Your task to perform on an android device: toggle notifications settings in the gmail app Image 0: 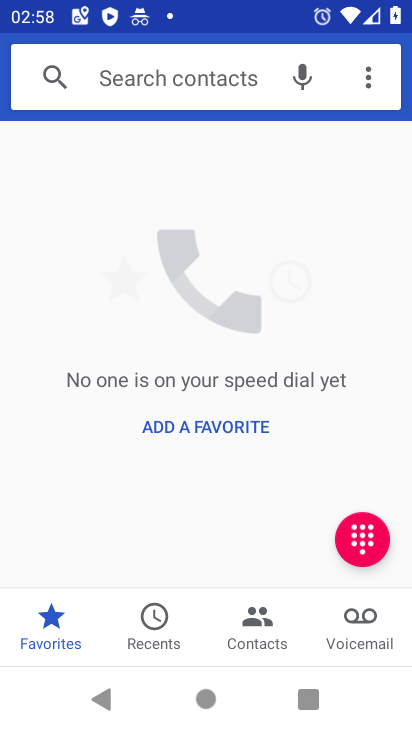
Step 0: press home button
Your task to perform on an android device: toggle notifications settings in the gmail app Image 1: 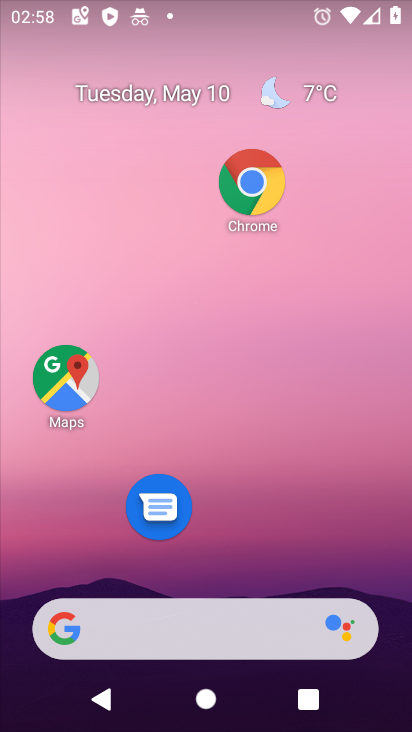
Step 1: drag from (299, 522) to (284, 190)
Your task to perform on an android device: toggle notifications settings in the gmail app Image 2: 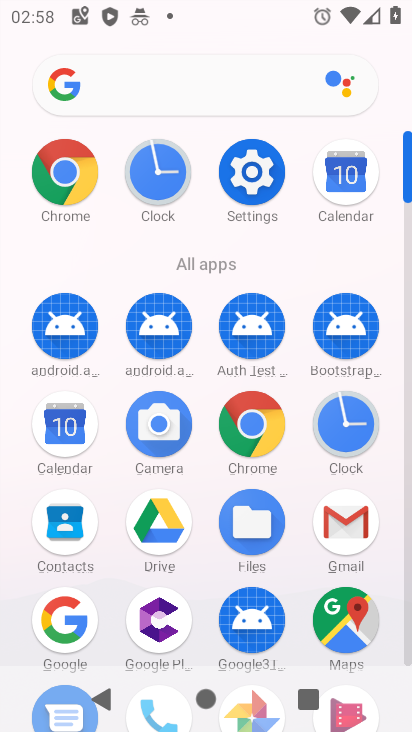
Step 2: click (249, 177)
Your task to perform on an android device: toggle notifications settings in the gmail app Image 3: 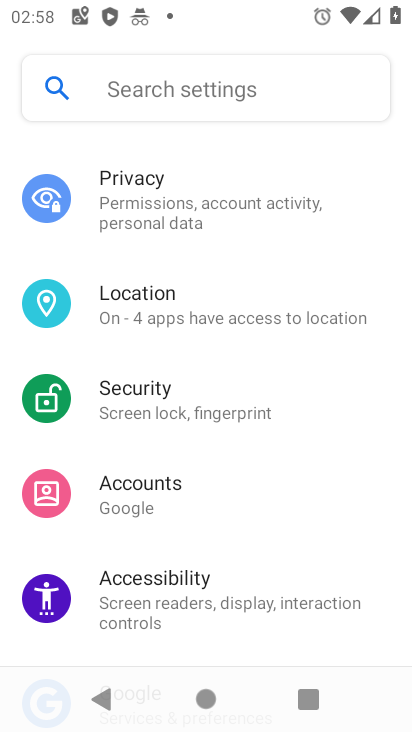
Step 3: press home button
Your task to perform on an android device: toggle notifications settings in the gmail app Image 4: 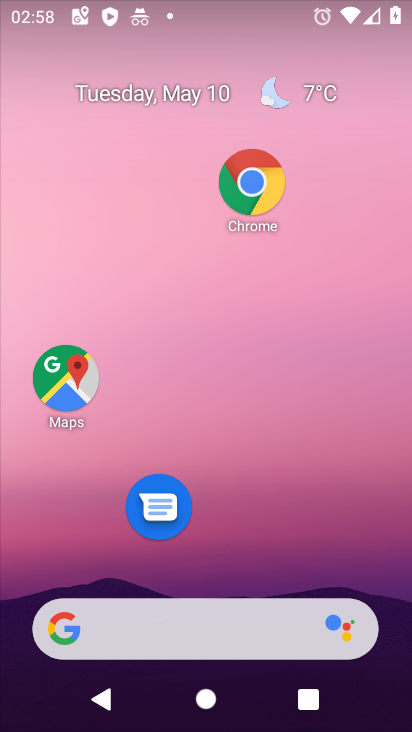
Step 4: drag from (213, 549) to (169, 106)
Your task to perform on an android device: toggle notifications settings in the gmail app Image 5: 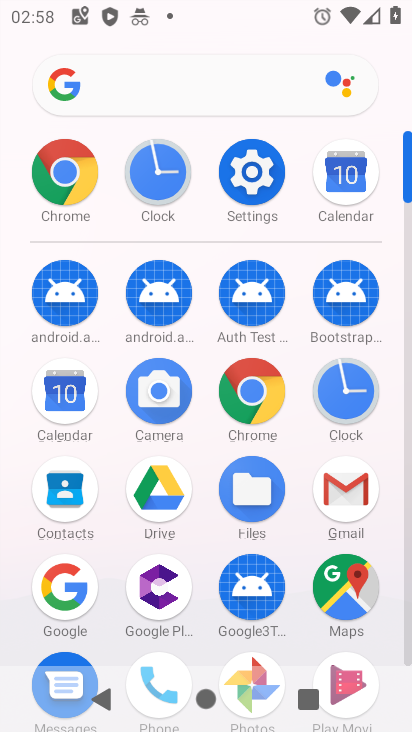
Step 5: click (345, 516)
Your task to perform on an android device: toggle notifications settings in the gmail app Image 6: 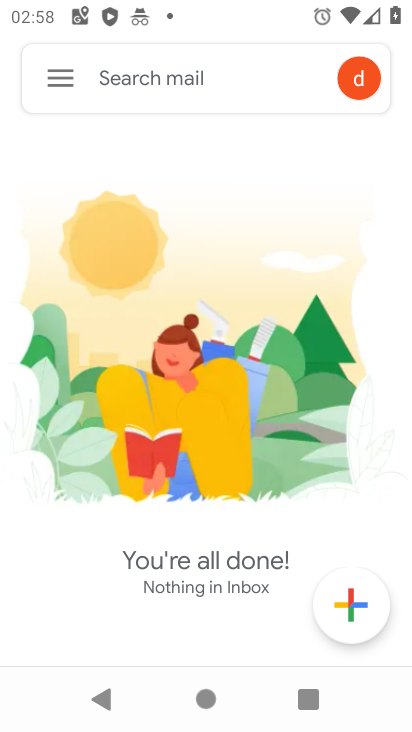
Step 6: click (49, 76)
Your task to perform on an android device: toggle notifications settings in the gmail app Image 7: 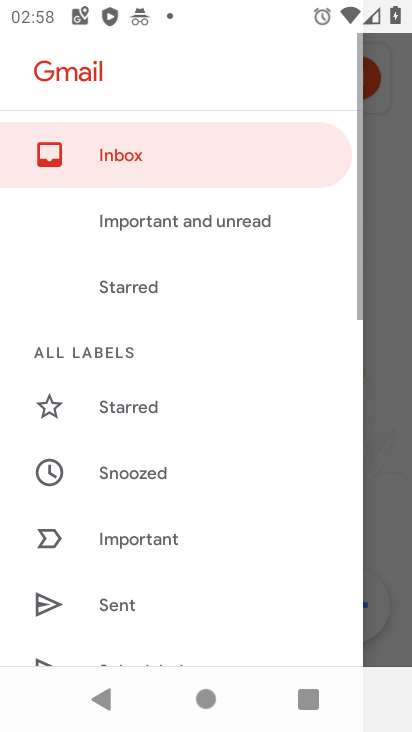
Step 7: drag from (115, 475) to (87, 202)
Your task to perform on an android device: toggle notifications settings in the gmail app Image 8: 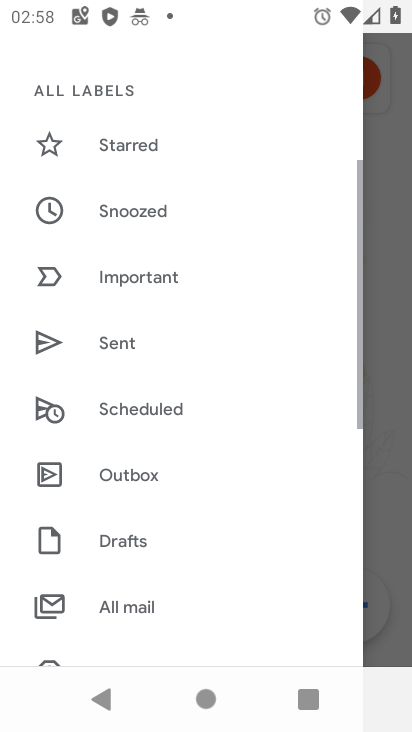
Step 8: drag from (145, 548) to (122, 295)
Your task to perform on an android device: toggle notifications settings in the gmail app Image 9: 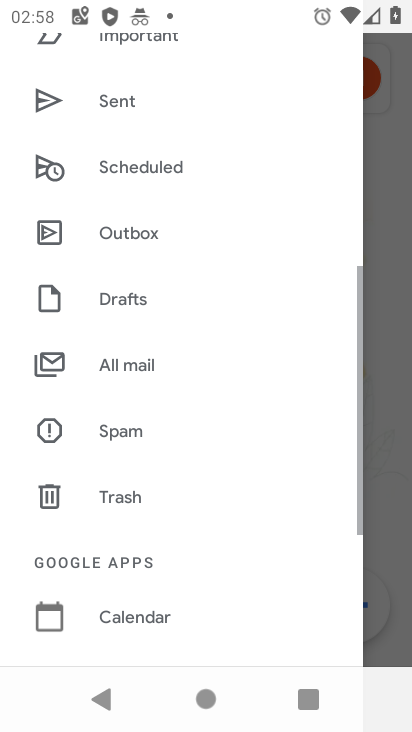
Step 9: click (122, 295)
Your task to perform on an android device: toggle notifications settings in the gmail app Image 10: 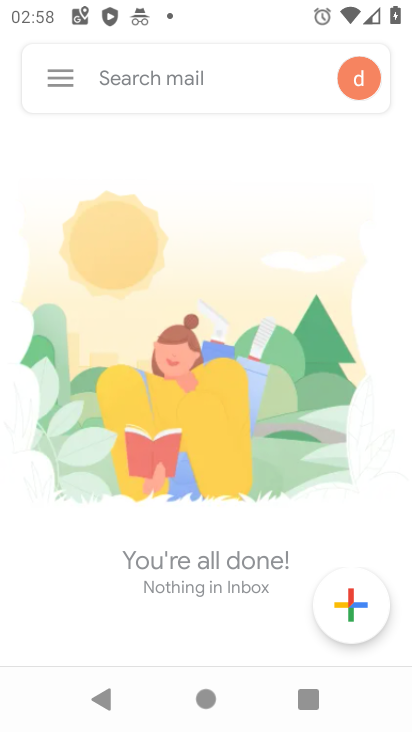
Step 10: drag from (172, 648) to (175, 551)
Your task to perform on an android device: toggle notifications settings in the gmail app Image 11: 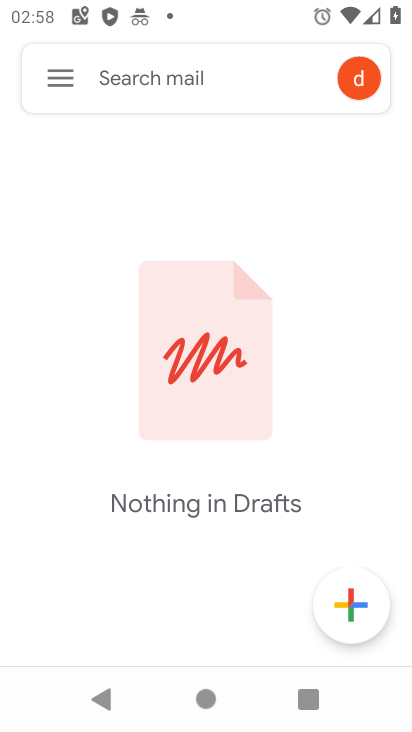
Step 11: click (37, 63)
Your task to perform on an android device: toggle notifications settings in the gmail app Image 12: 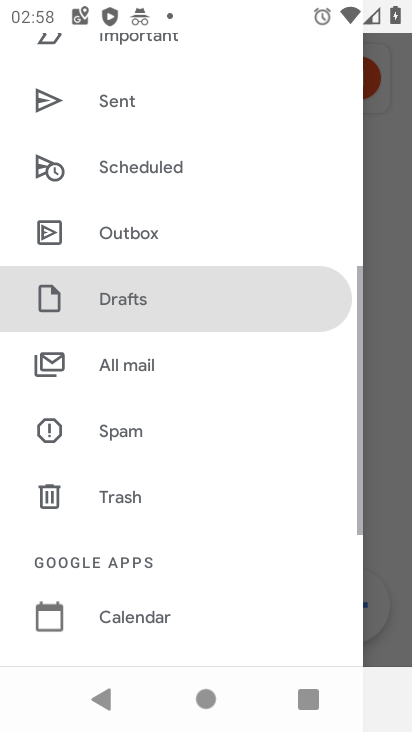
Step 12: drag from (127, 534) to (99, 199)
Your task to perform on an android device: toggle notifications settings in the gmail app Image 13: 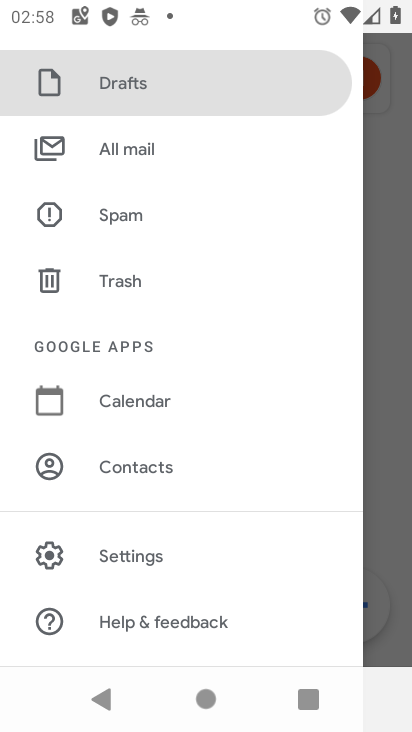
Step 13: click (131, 573)
Your task to perform on an android device: toggle notifications settings in the gmail app Image 14: 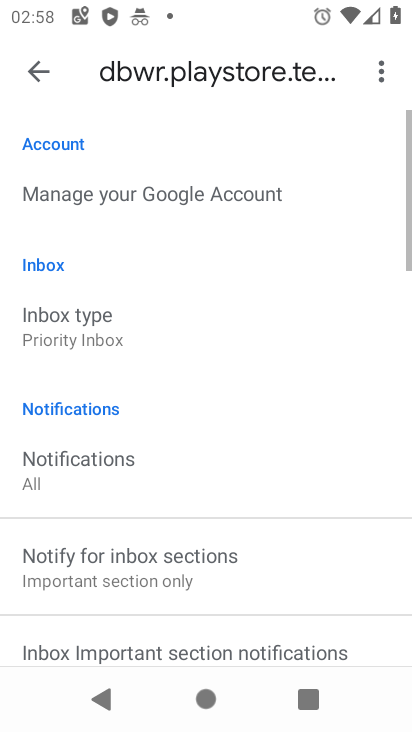
Step 14: drag from (131, 573) to (118, 259)
Your task to perform on an android device: toggle notifications settings in the gmail app Image 15: 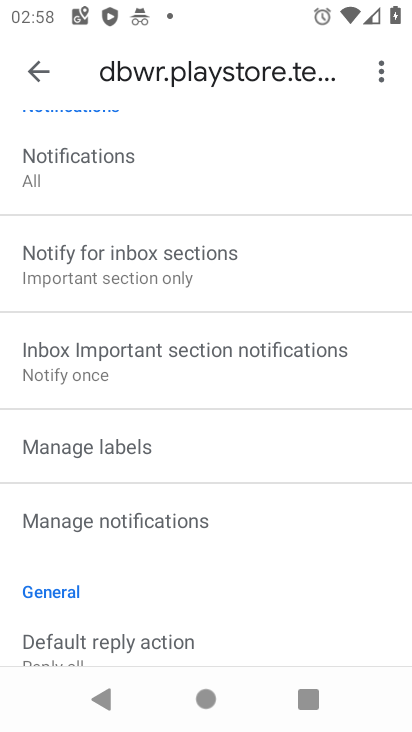
Step 15: click (139, 505)
Your task to perform on an android device: toggle notifications settings in the gmail app Image 16: 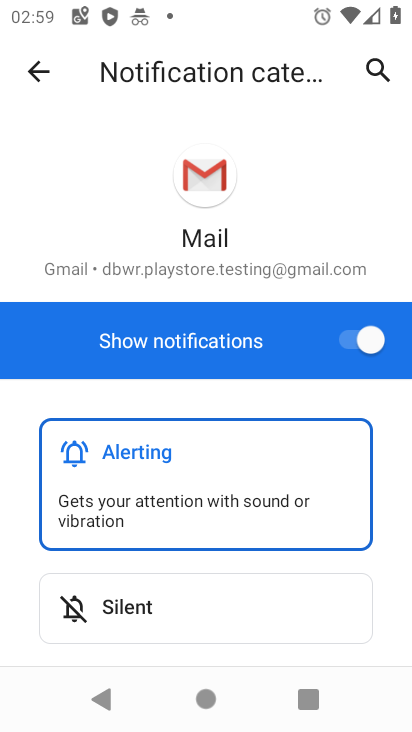
Step 16: click (319, 360)
Your task to perform on an android device: toggle notifications settings in the gmail app Image 17: 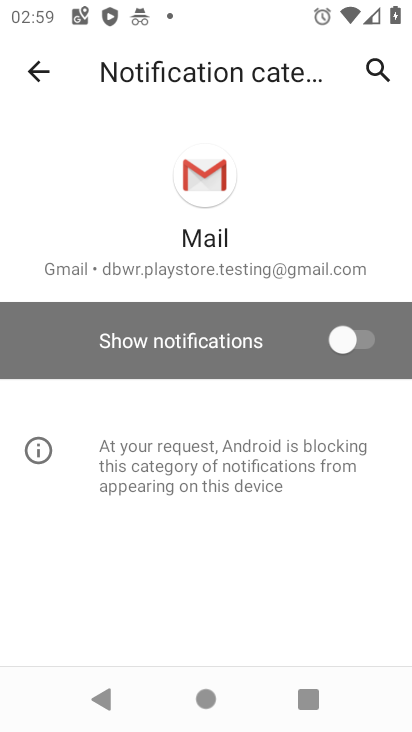
Step 17: task complete